Your task to perform on an android device: toggle wifi Image 0: 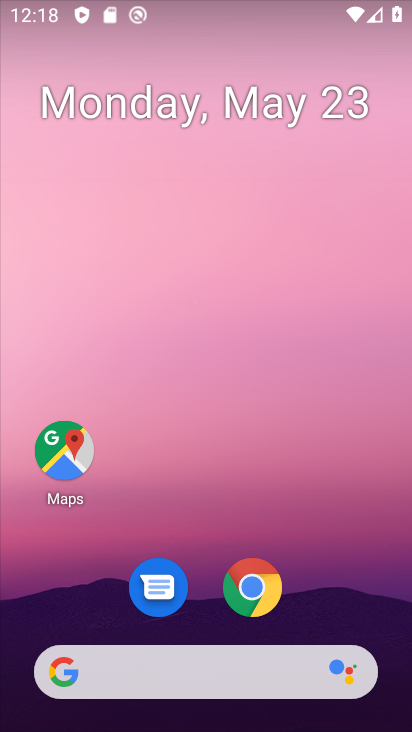
Step 0: drag from (73, 11) to (136, 444)
Your task to perform on an android device: toggle wifi Image 1: 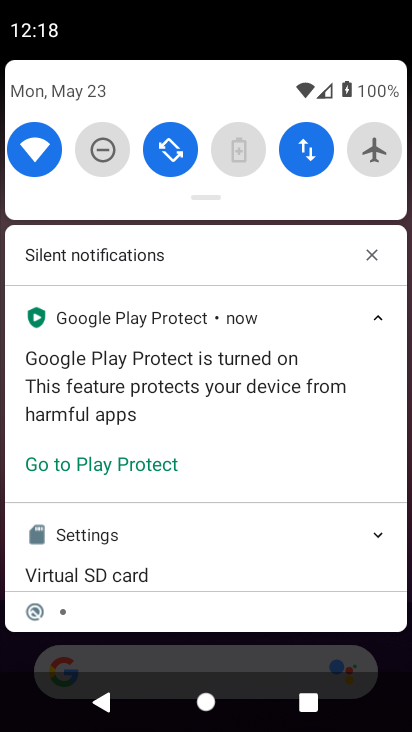
Step 1: click (45, 149)
Your task to perform on an android device: toggle wifi Image 2: 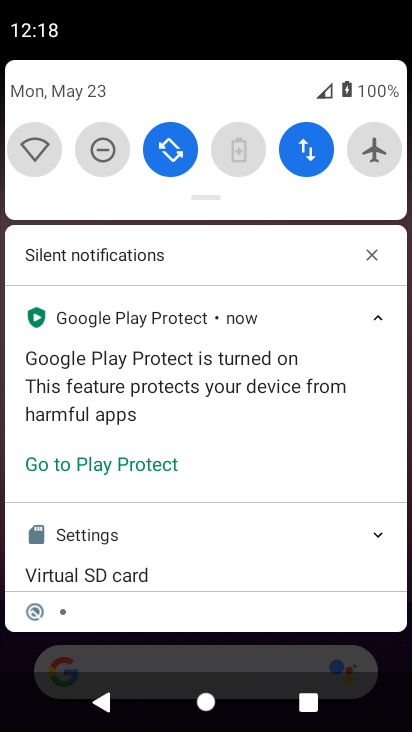
Step 2: task complete